Your task to perform on an android device: Open the calendar app, open the side menu, and click the "Day" option Image 0: 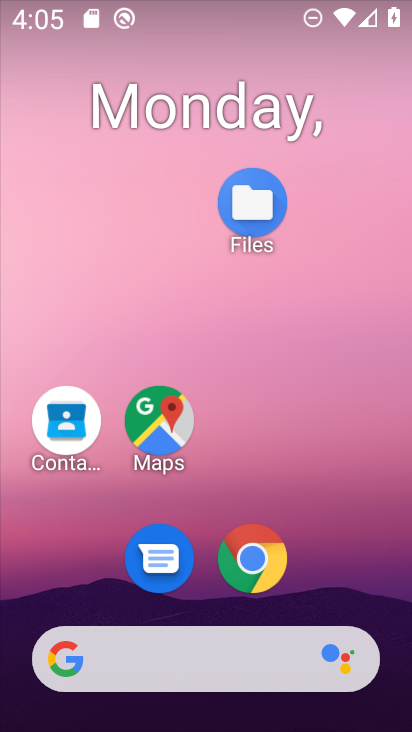
Step 0: drag from (278, 618) to (345, 0)
Your task to perform on an android device: Open the calendar app, open the side menu, and click the "Day" option Image 1: 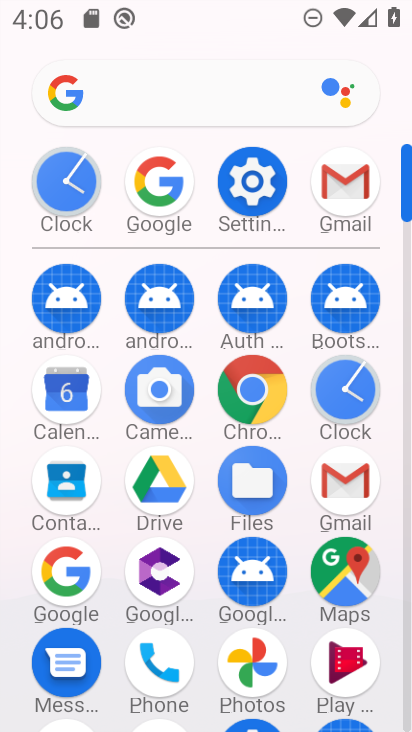
Step 1: click (80, 410)
Your task to perform on an android device: Open the calendar app, open the side menu, and click the "Day" option Image 2: 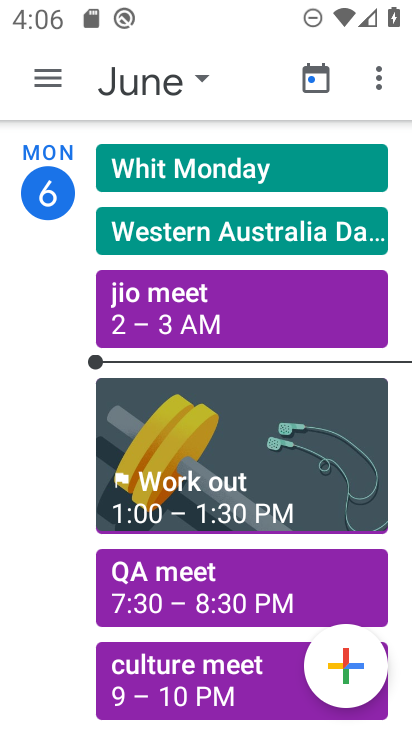
Step 2: click (56, 76)
Your task to perform on an android device: Open the calendar app, open the side menu, and click the "Day" option Image 3: 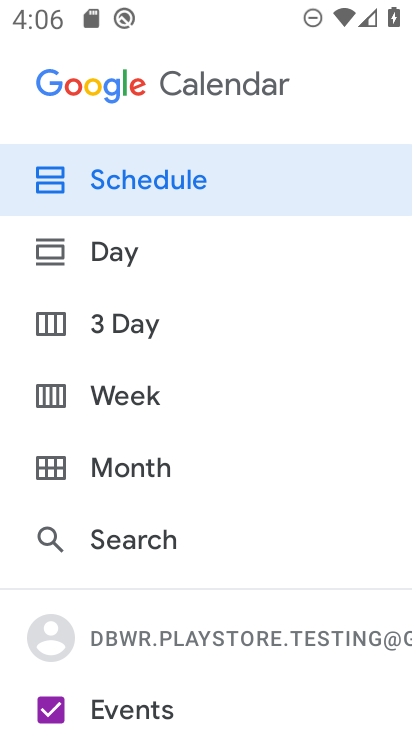
Step 3: click (151, 252)
Your task to perform on an android device: Open the calendar app, open the side menu, and click the "Day" option Image 4: 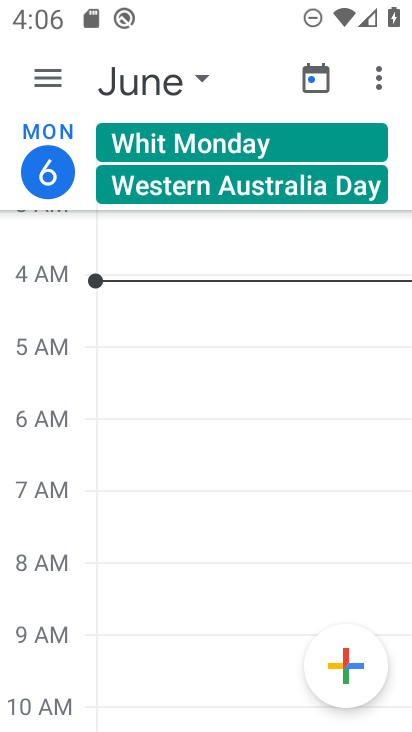
Step 4: task complete